Your task to perform on an android device: turn on notifications settings in the gmail app Image 0: 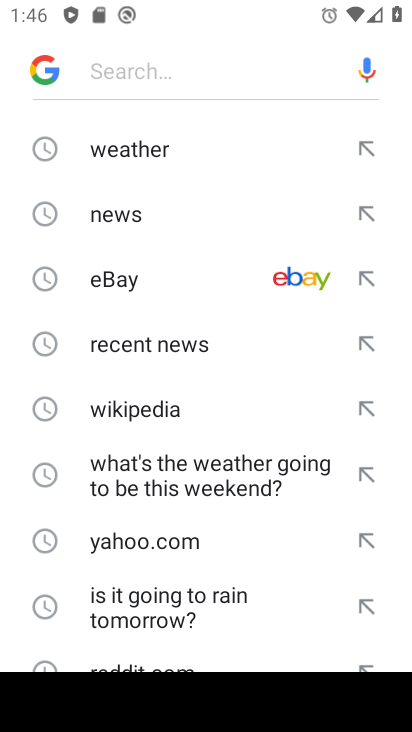
Step 0: press home button
Your task to perform on an android device: turn on notifications settings in the gmail app Image 1: 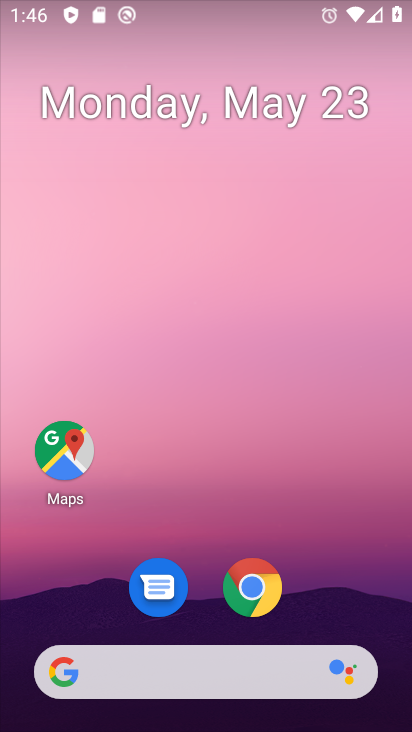
Step 1: drag from (384, 580) to (359, 237)
Your task to perform on an android device: turn on notifications settings in the gmail app Image 2: 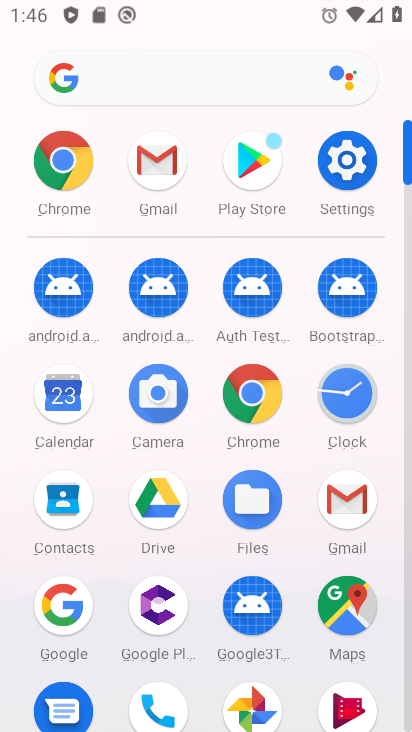
Step 2: click (337, 207)
Your task to perform on an android device: turn on notifications settings in the gmail app Image 3: 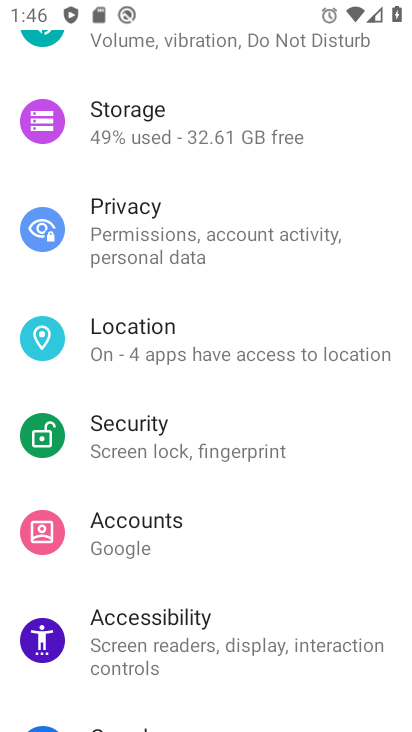
Step 3: drag from (219, 194) to (248, 450)
Your task to perform on an android device: turn on notifications settings in the gmail app Image 4: 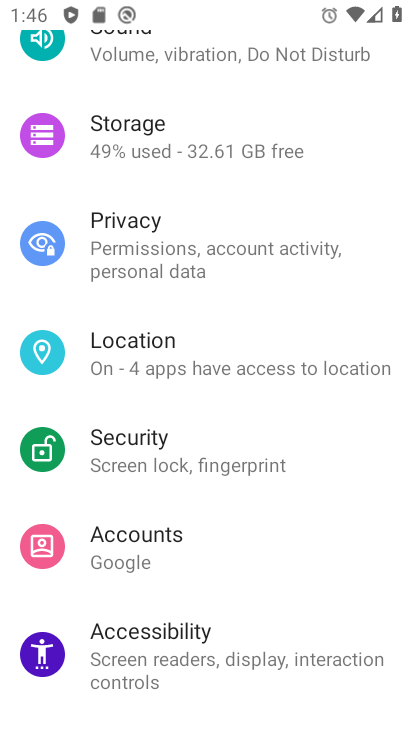
Step 4: drag from (247, 76) to (217, 679)
Your task to perform on an android device: turn on notifications settings in the gmail app Image 5: 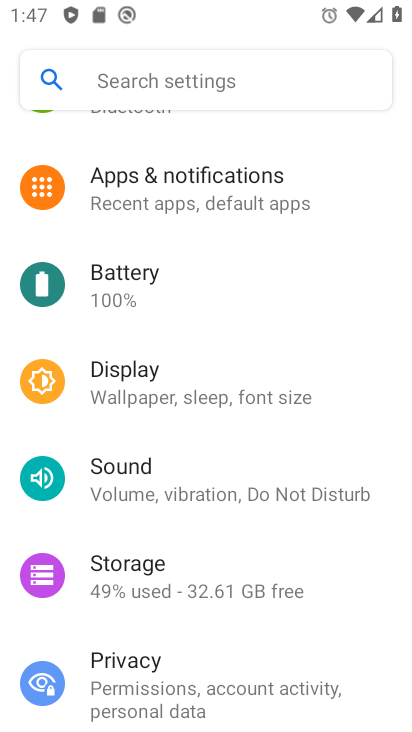
Step 5: click (219, 211)
Your task to perform on an android device: turn on notifications settings in the gmail app Image 6: 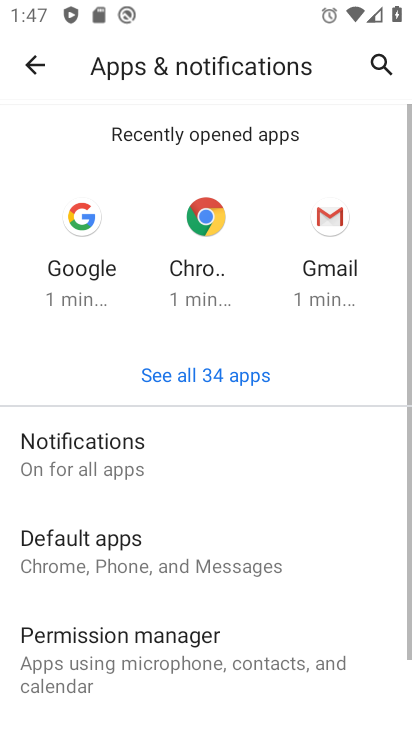
Step 6: drag from (207, 495) to (207, 312)
Your task to perform on an android device: turn on notifications settings in the gmail app Image 7: 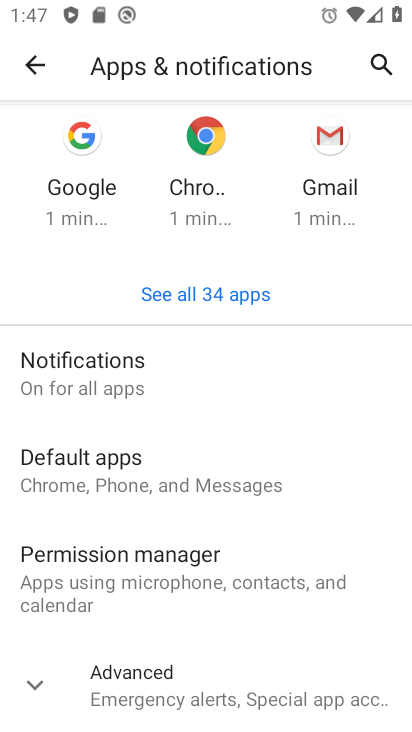
Step 7: drag from (207, 526) to (212, 452)
Your task to perform on an android device: turn on notifications settings in the gmail app Image 8: 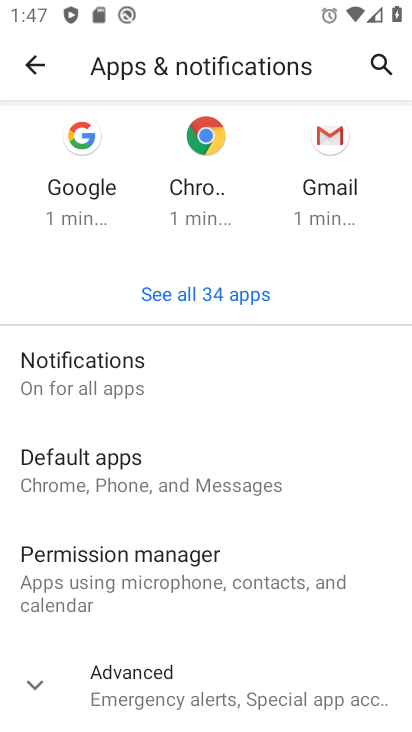
Step 8: press home button
Your task to perform on an android device: turn on notifications settings in the gmail app Image 9: 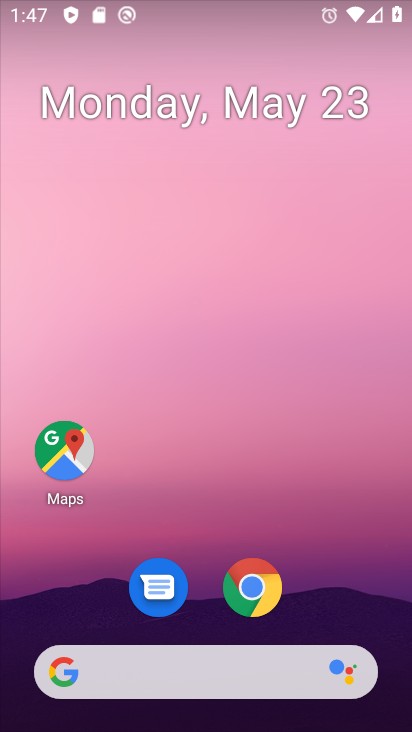
Step 9: drag from (366, 599) to (323, 111)
Your task to perform on an android device: turn on notifications settings in the gmail app Image 10: 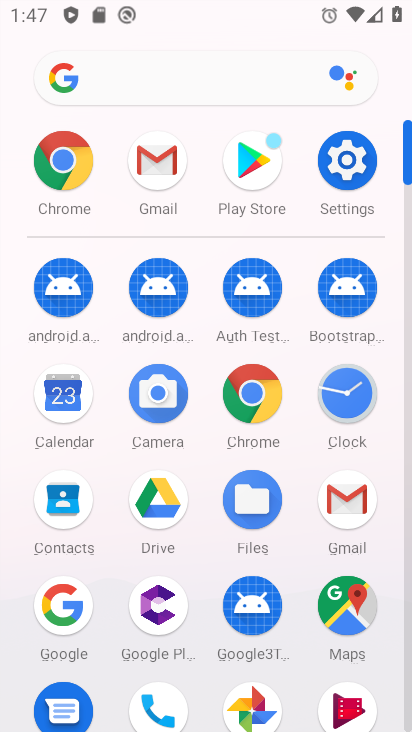
Step 10: click (177, 161)
Your task to perform on an android device: turn on notifications settings in the gmail app Image 11: 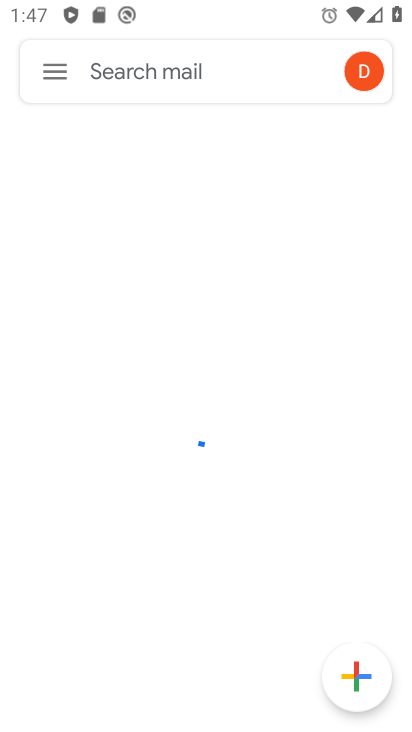
Step 11: click (54, 83)
Your task to perform on an android device: turn on notifications settings in the gmail app Image 12: 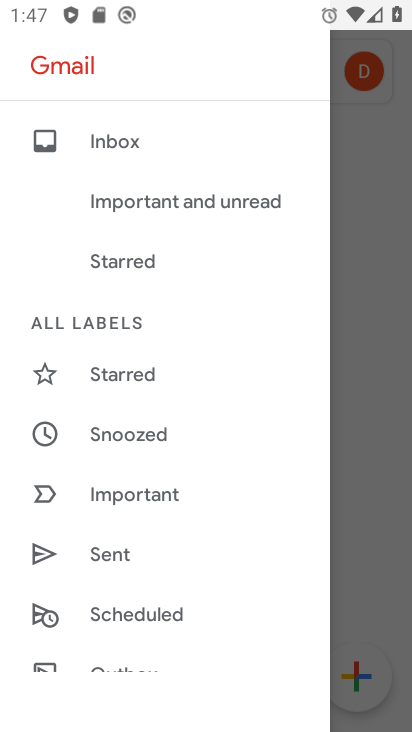
Step 12: click (54, 83)
Your task to perform on an android device: turn on notifications settings in the gmail app Image 13: 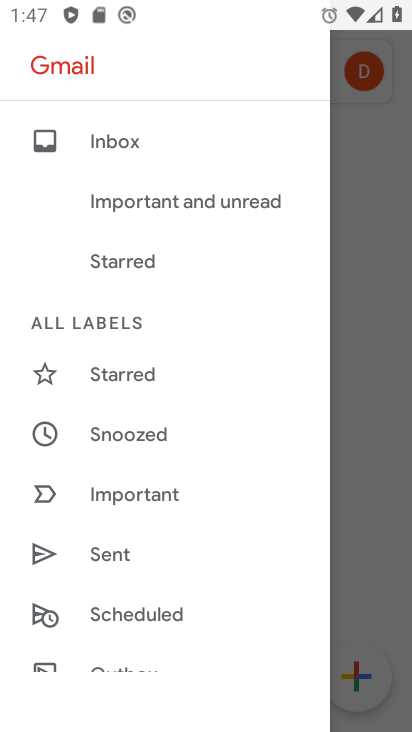
Step 13: drag from (163, 434) to (161, 305)
Your task to perform on an android device: turn on notifications settings in the gmail app Image 14: 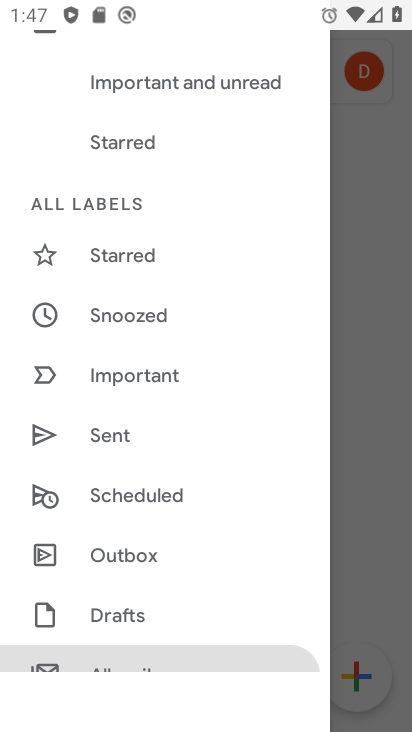
Step 14: drag from (210, 641) to (207, 423)
Your task to perform on an android device: turn on notifications settings in the gmail app Image 15: 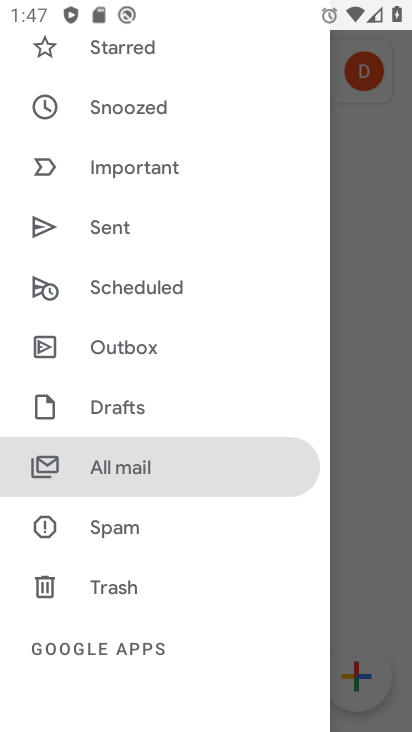
Step 15: drag from (179, 644) to (175, 438)
Your task to perform on an android device: turn on notifications settings in the gmail app Image 16: 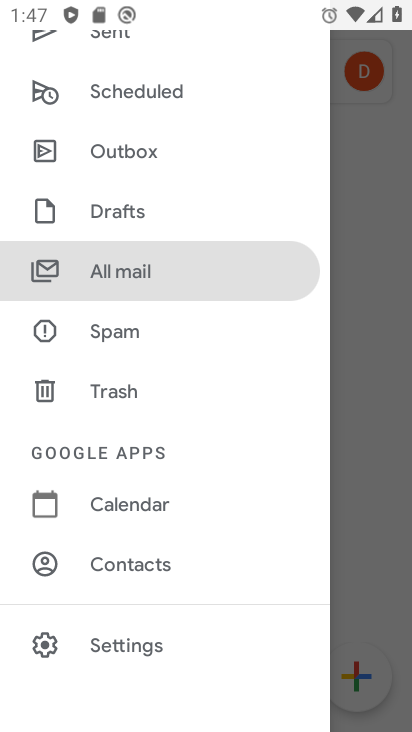
Step 16: click (207, 633)
Your task to perform on an android device: turn on notifications settings in the gmail app Image 17: 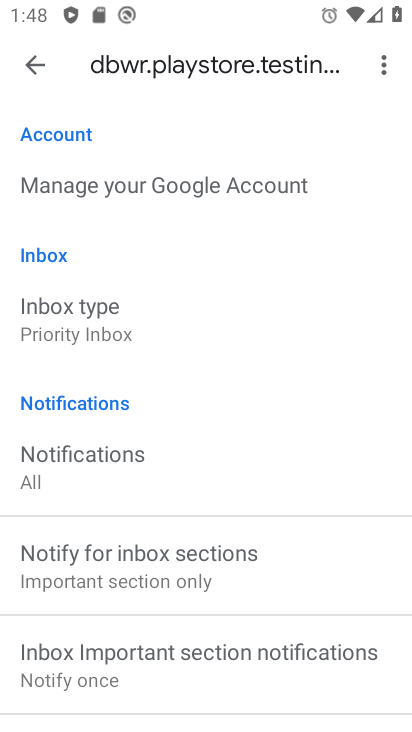
Step 17: click (134, 468)
Your task to perform on an android device: turn on notifications settings in the gmail app Image 18: 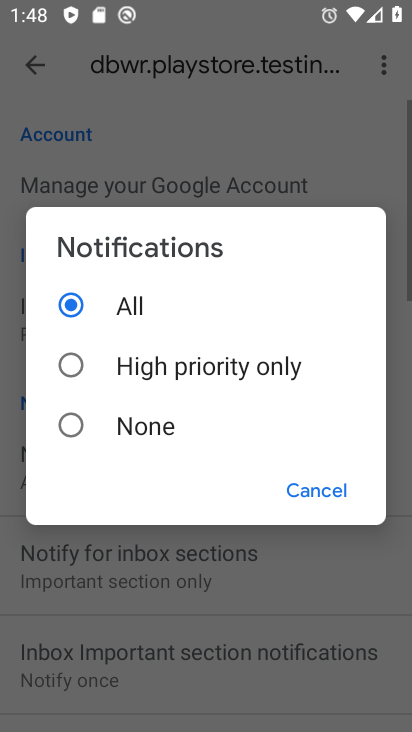
Step 18: click (137, 350)
Your task to perform on an android device: turn on notifications settings in the gmail app Image 19: 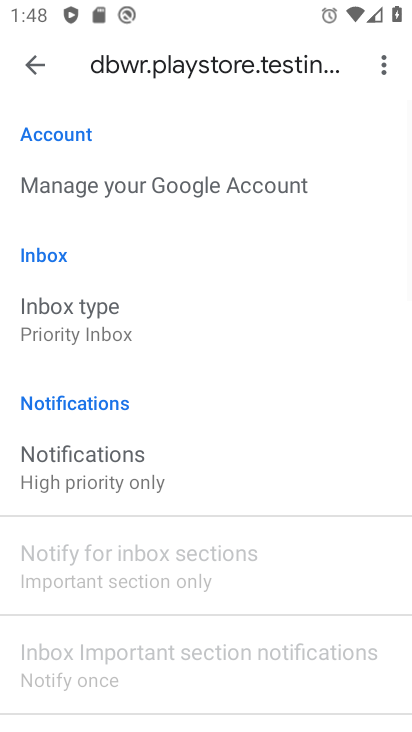
Step 19: task complete